Your task to perform on an android device: change the upload size in google photos Image 0: 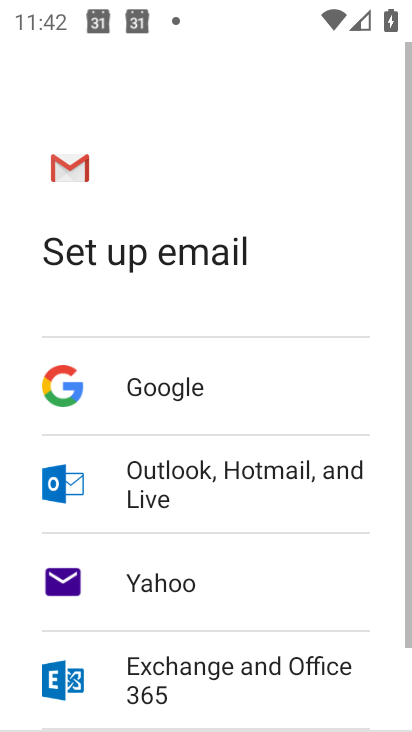
Step 0: press home button
Your task to perform on an android device: change the upload size in google photos Image 1: 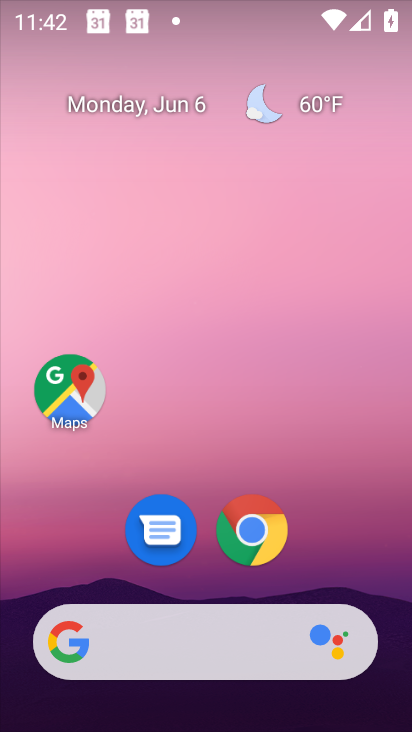
Step 1: drag from (333, 525) to (221, 46)
Your task to perform on an android device: change the upload size in google photos Image 2: 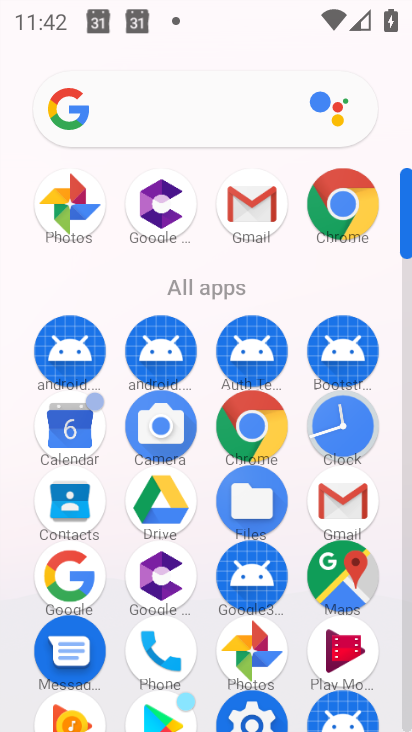
Step 2: click (76, 205)
Your task to perform on an android device: change the upload size in google photos Image 3: 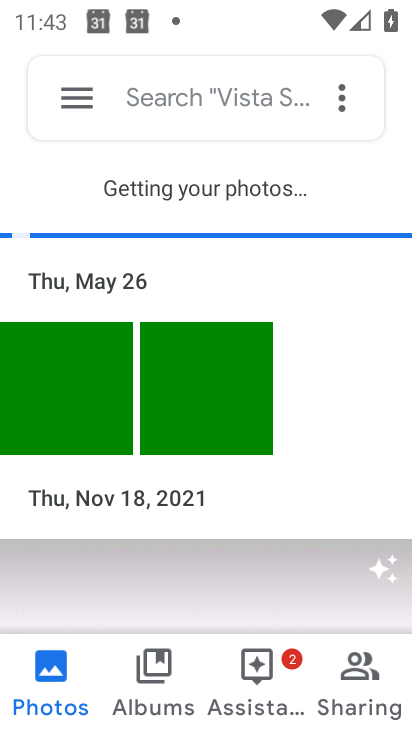
Step 3: click (85, 97)
Your task to perform on an android device: change the upload size in google photos Image 4: 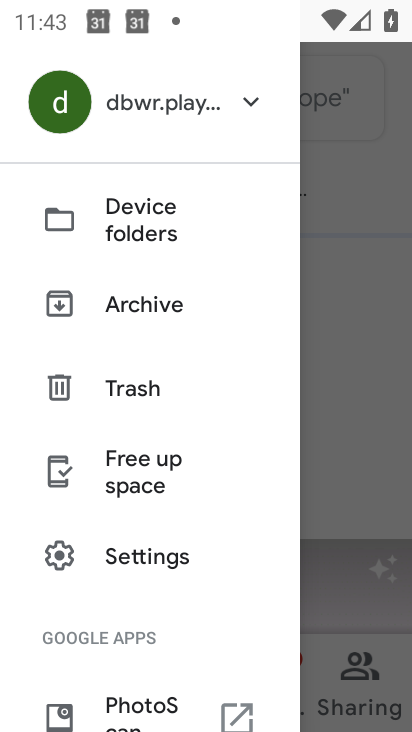
Step 4: click (149, 567)
Your task to perform on an android device: change the upload size in google photos Image 5: 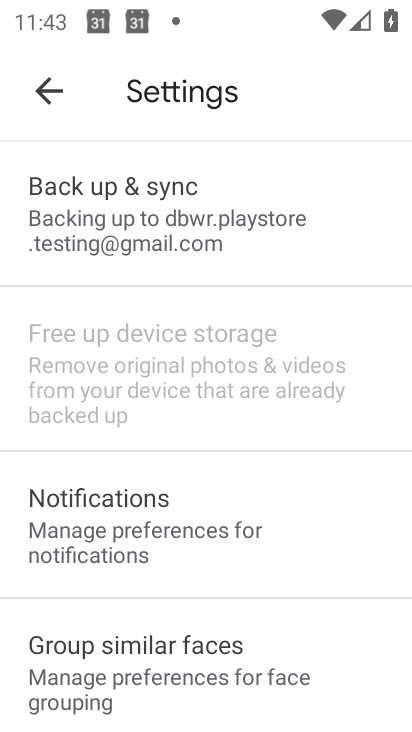
Step 5: click (159, 227)
Your task to perform on an android device: change the upload size in google photos Image 6: 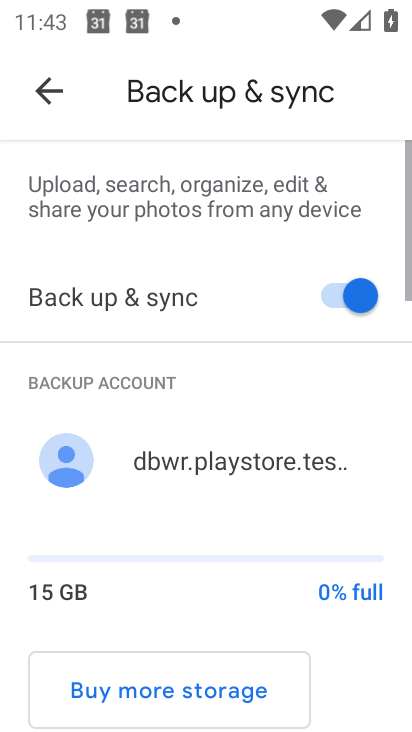
Step 6: drag from (163, 547) to (247, 130)
Your task to perform on an android device: change the upload size in google photos Image 7: 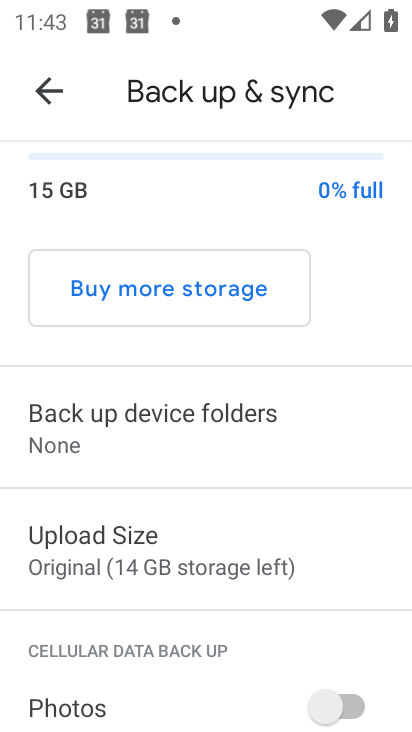
Step 7: click (185, 545)
Your task to perform on an android device: change the upload size in google photos Image 8: 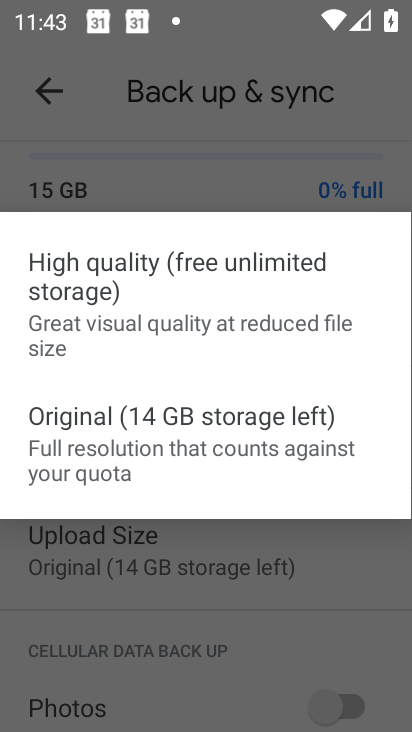
Step 8: click (147, 302)
Your task to perform on an android device: change the upload size in google photos Image 9: 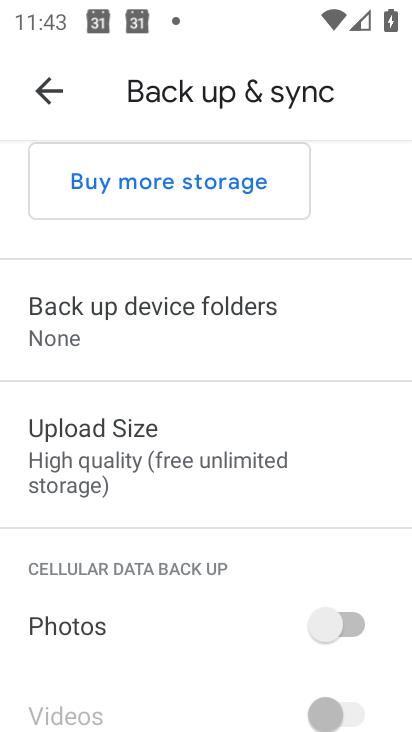
Step 9: task complete